Your task to perform on an android device: check out phone information Image 0: 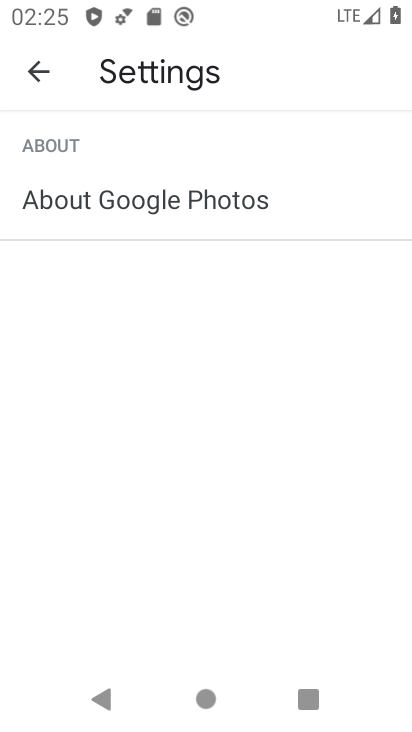
Step 0: press home button
Your task to perform on an android device: check out phone information Image 1: 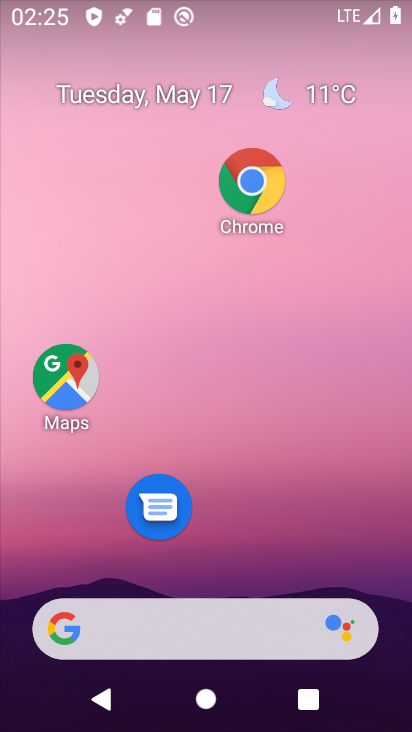
Step 1: drag from (262, 546) to (324, 8)
Your task to perform on an android device: check out phone information Image 2: 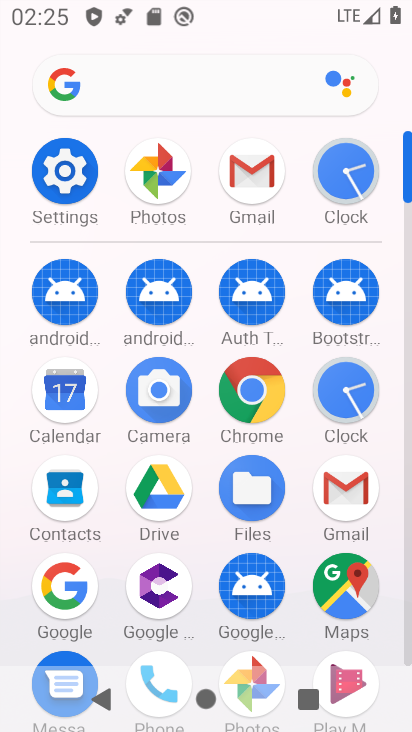
Step 2: click (50, 156)
Your task to perform on an android device: check out phone information Image 3: 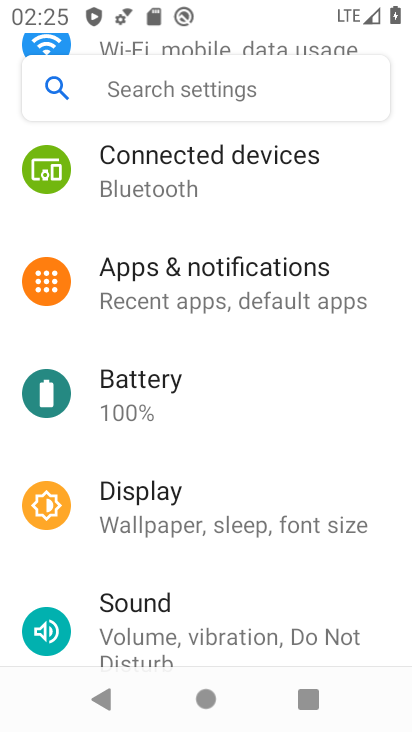
Step 3: drag from (140, 668) to (187, 340)
Your task to perform on an android device: check out phone information Image 4: 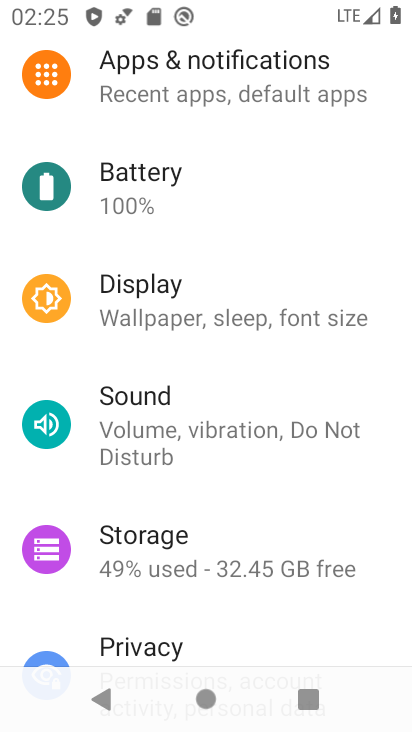
Step 4: drag from (169, 653) to (259, 163)
Your task to perform on an android device: check out phone information Image 5: 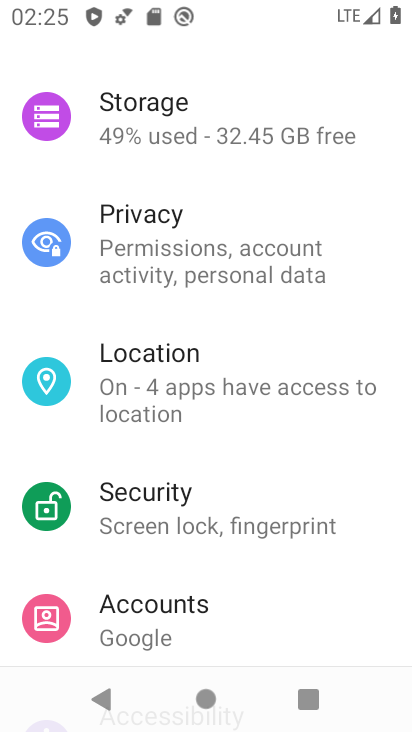
Step 5: drag from (143, 639) to (267, 243)
Your task to perform on an android device: check out phone information Image 6: 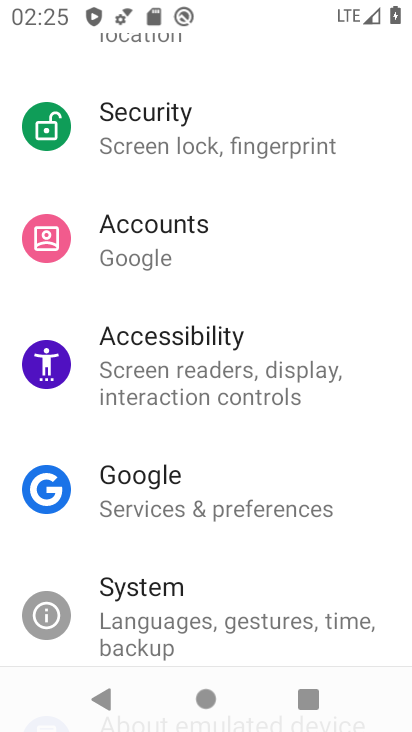
Step 6: drag from (70, 625) to (137, 159)
Your task to perform on an android device: check out phone information Image 7: 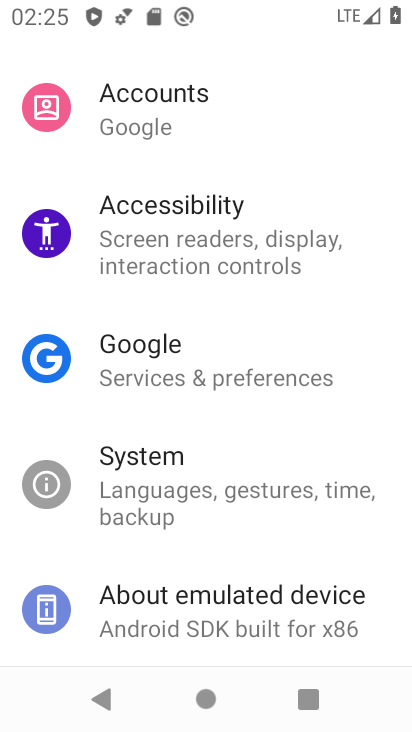
Step 7: drag from (169, 571) to (290, 221)
Your task to perform on an android device: check out phone information Image 8: 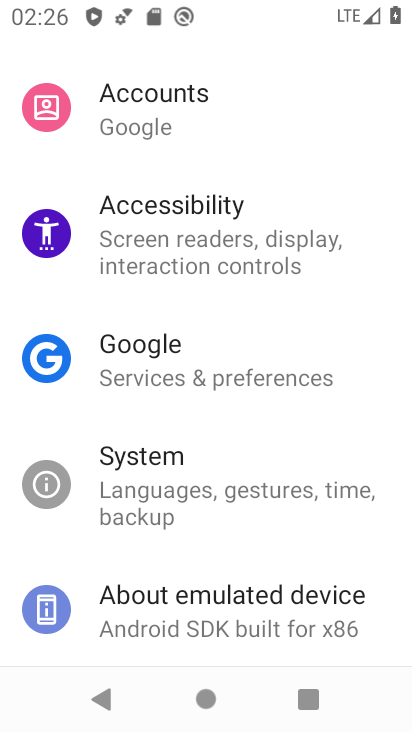
Step 8: click (171, 604)
Your task to perform on an android device: check out phone information Image 9: 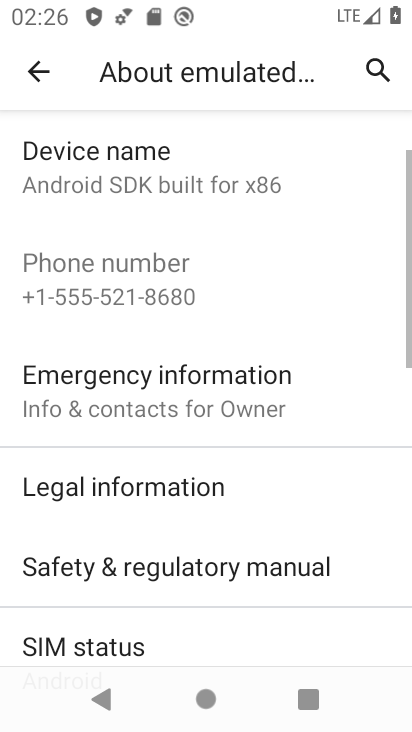
Step 9: task complete